Your task to perform on an android device: toggle javascript in the chrome app Image 0: 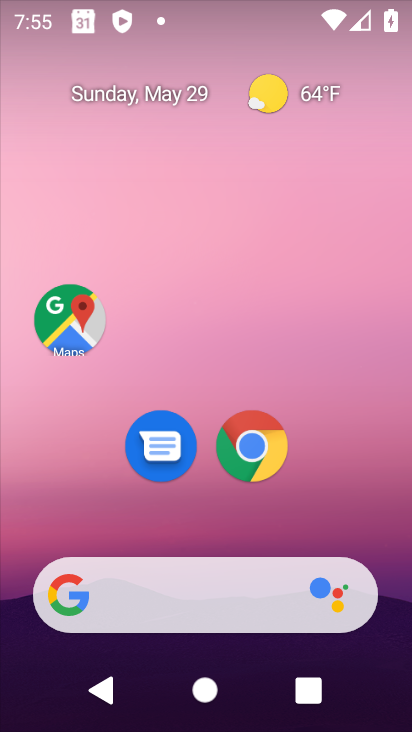
Step 0: drag from (206, 485) to (261, 141)
Your task to perform on an android device: toggle javascript in the chrome app Image 1: 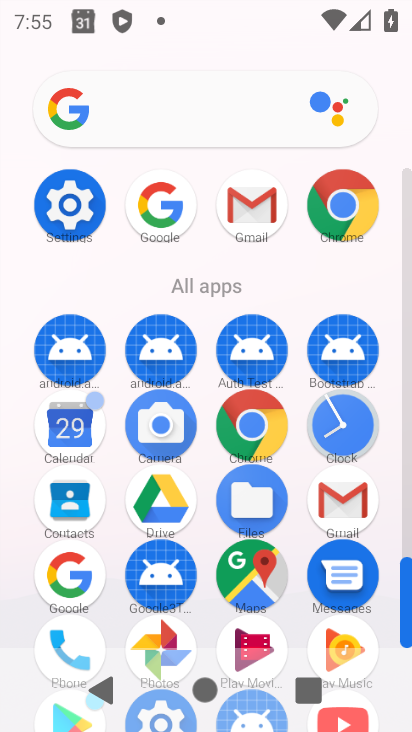
Step 1: click (76, 212)
Your task to perform on an android device: toggle javascript in the chrome app Image 2: 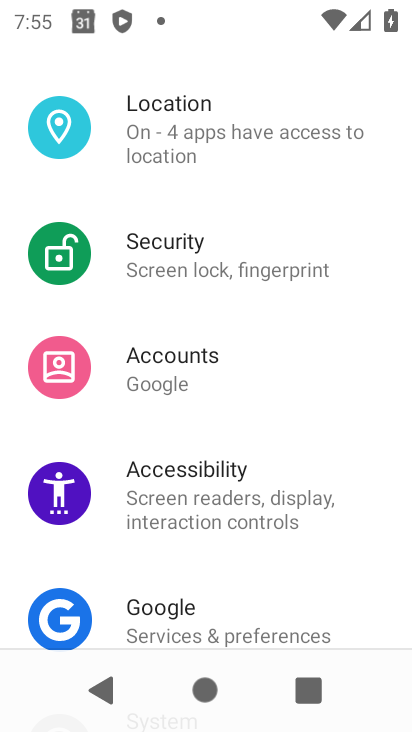
Step 2: drag from (264, 564) to (340, 22)
Your task to perform on an android device: toggle javascript in the chrome app Image 3: 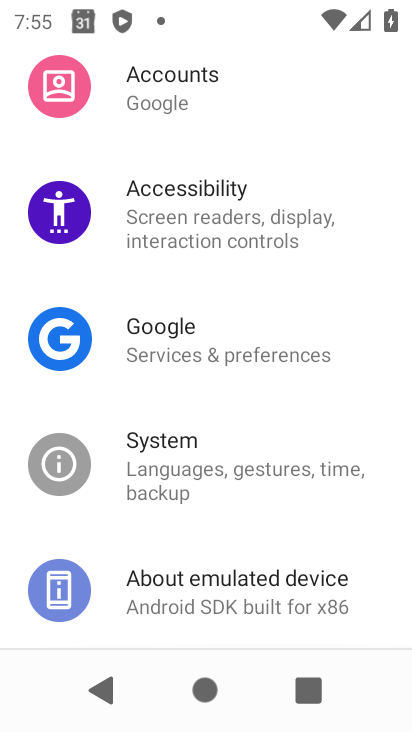
Step 3: drag from (331, 87) to (288, 668)
Your task to perform on an android device: toggle javascript in the chrome app Image 4: 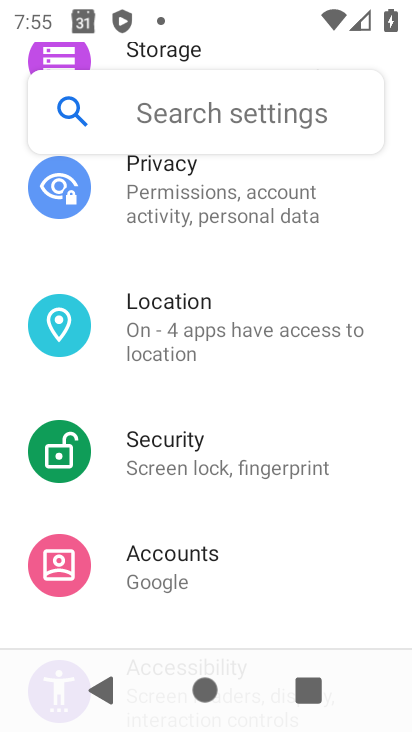
Step 4: press home button
Your task to perform on an android device: toggle javascript in the chrome app Image 5: 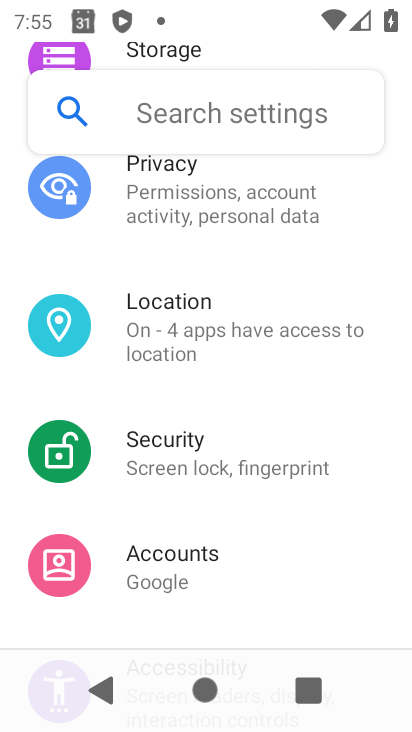
Step 5: click (385, 501)
Your task to perform on an android device: toggle javascript in the chrome app Image 6: 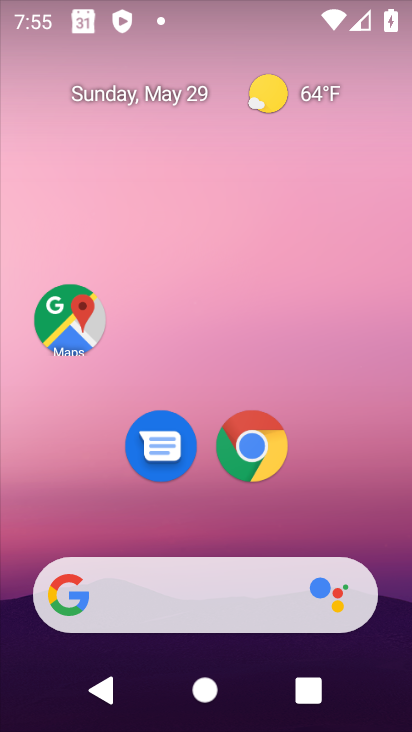
Step 6: drag from (211, 508) to (346, 50)
Your task to perform on an android device: toggle javascript in the chrome app Image 7: 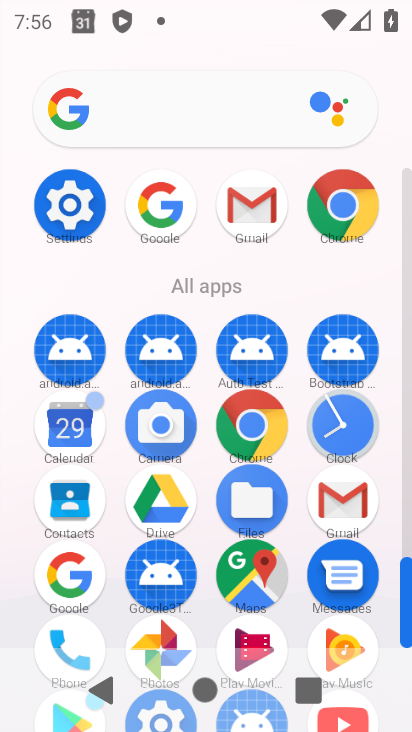
Step 7: click (350, 202)
Your task to perform on an android device: toggle javascript in the chrome app Image 8: 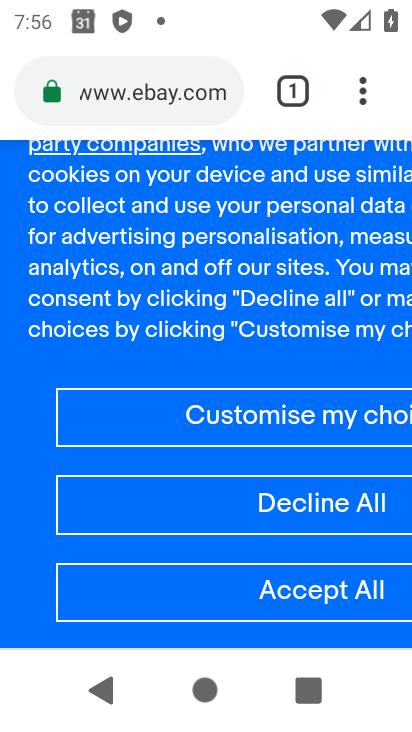
Step 8: drag from (304, 295) to (293, 731)
Your task to perform on an android device: toggle javascript in the chrome app Image 9: 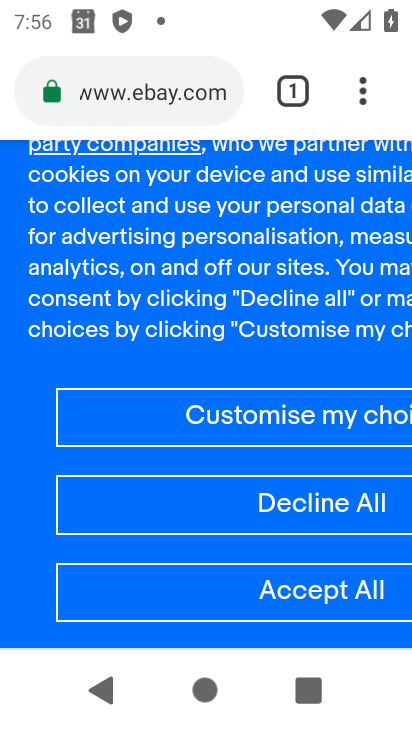
Step 9: drag from (256, 604) to (354, 727)
Your task to perform on an android device: toggle javascript in the chrome app Image 10: 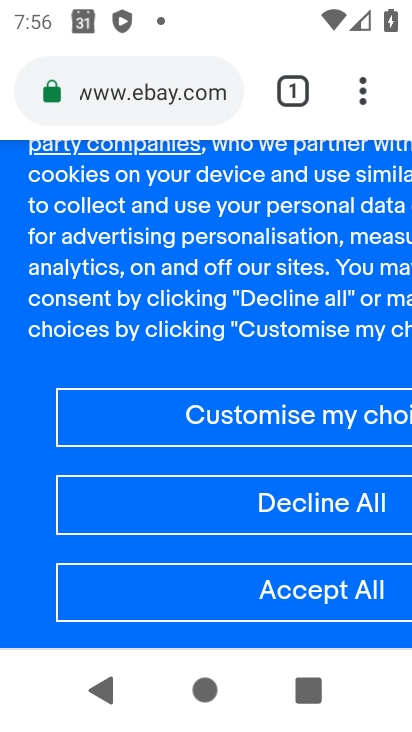
Step 10: drag from (355, 100) to (125, 494)
Your task to perform on an android device: toggle javascript in the chrome app Image 11: 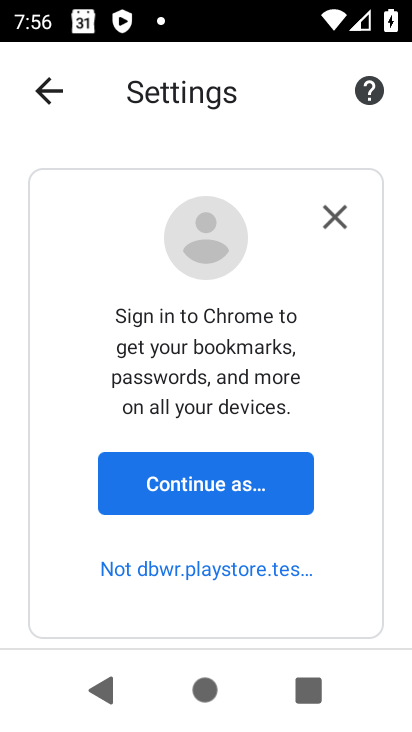
Step 11: drag from (254, 595) to (350, 44)
Your task to perform on an android device: toggle javascript in the chrome app Image 12: 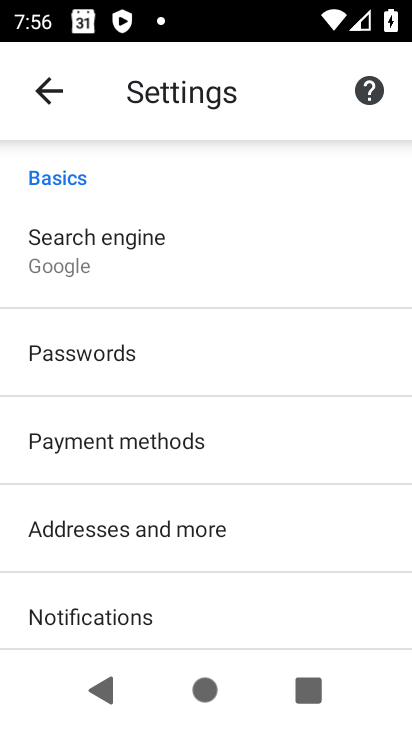
Step 12: drag from (218, 543) to (279, 107)
Your task to perform on an android device: toggle javascript in the chrome app Image 13: 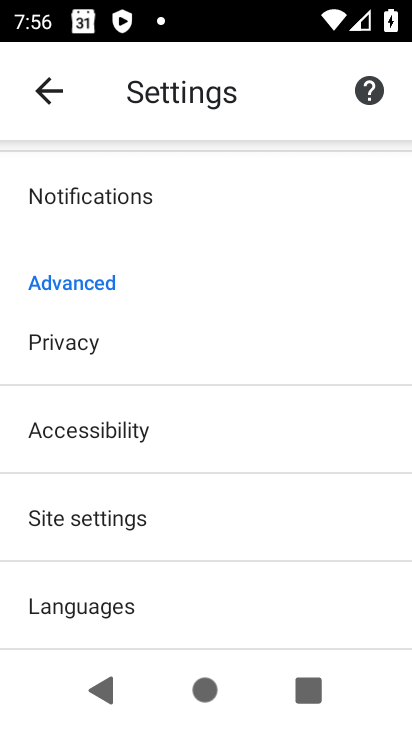
Step 13: click (170, 485)
Your task to perform on an android device: toggle javascript in the chrome app Image 14: 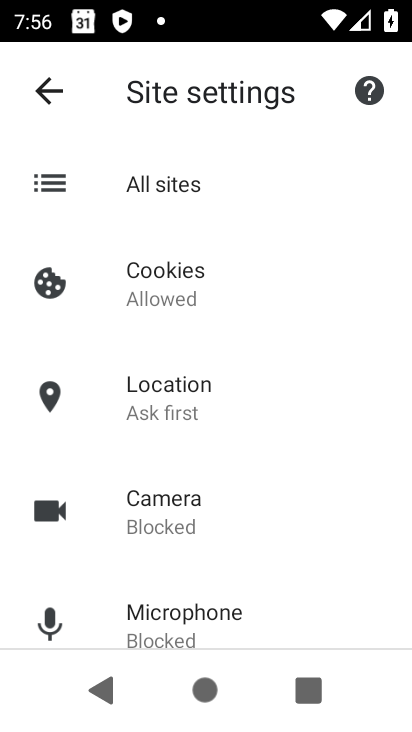
Step 14: drag from (202, 581) to (331, 106)
Your task to perform on an android device: toggle javascript in the chrome app Image 15: 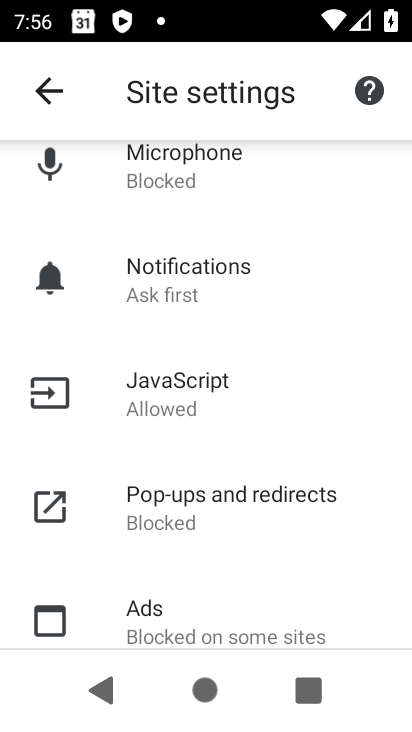
Step 15: click (188, 402)
Your task to perform on an android device: toggle javascript in the chrome app Image 16: 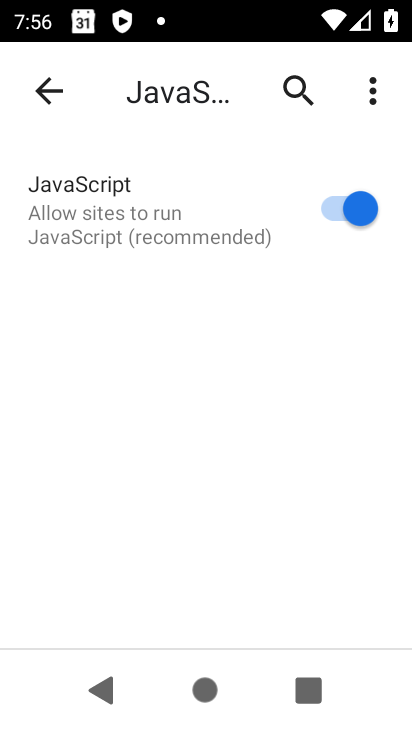
Step 16: click (349, 192)
Your task to perform on an android device: toggle javascript in the chrome app Image 17: 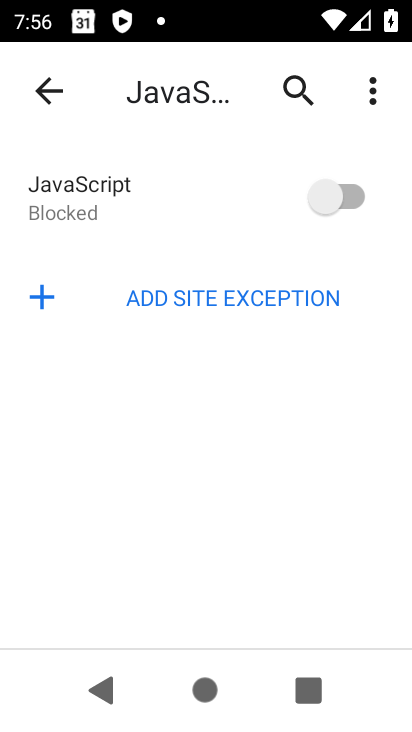
Step 17: task complete